Your task to perform on an android device: Go to ESPN.com Image 0: 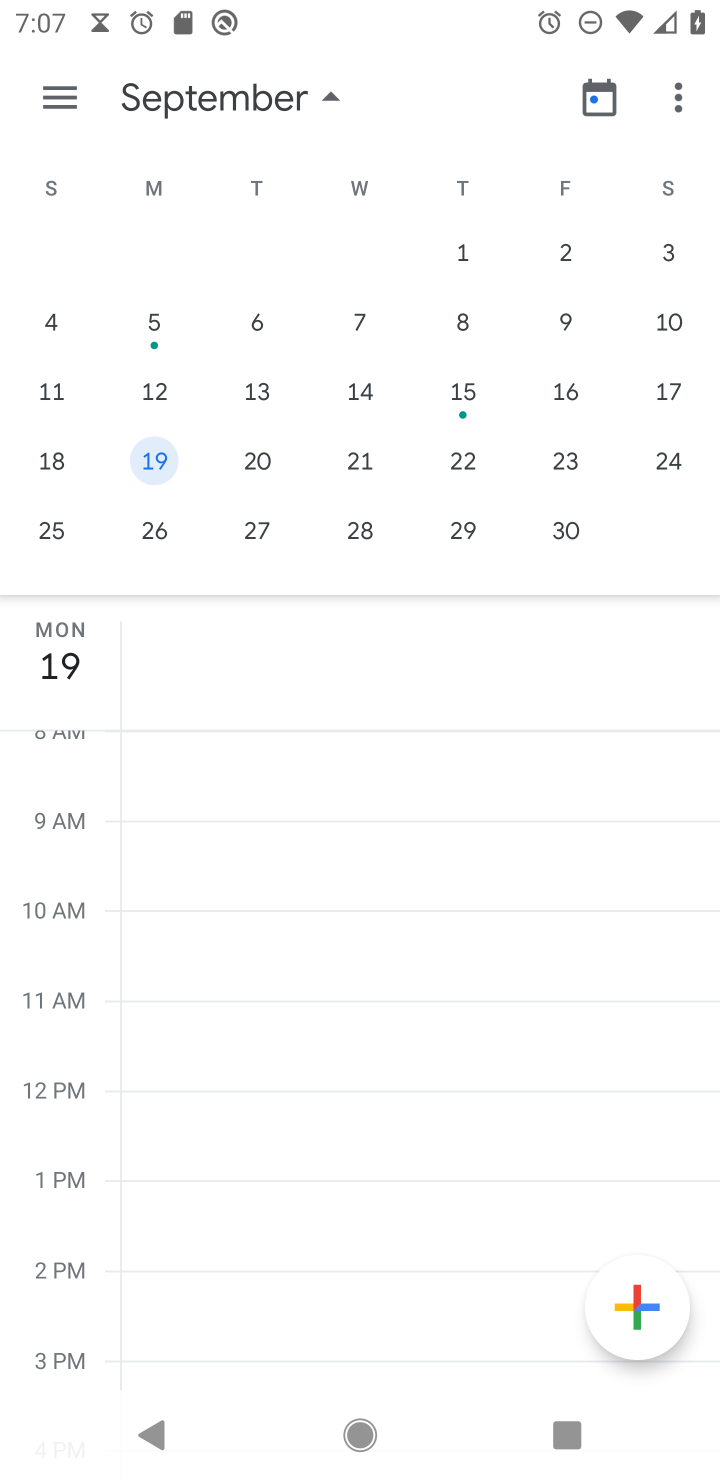
Step 0: press home button
Your task to perform on an android device: Go to ESPN.com Image 1: 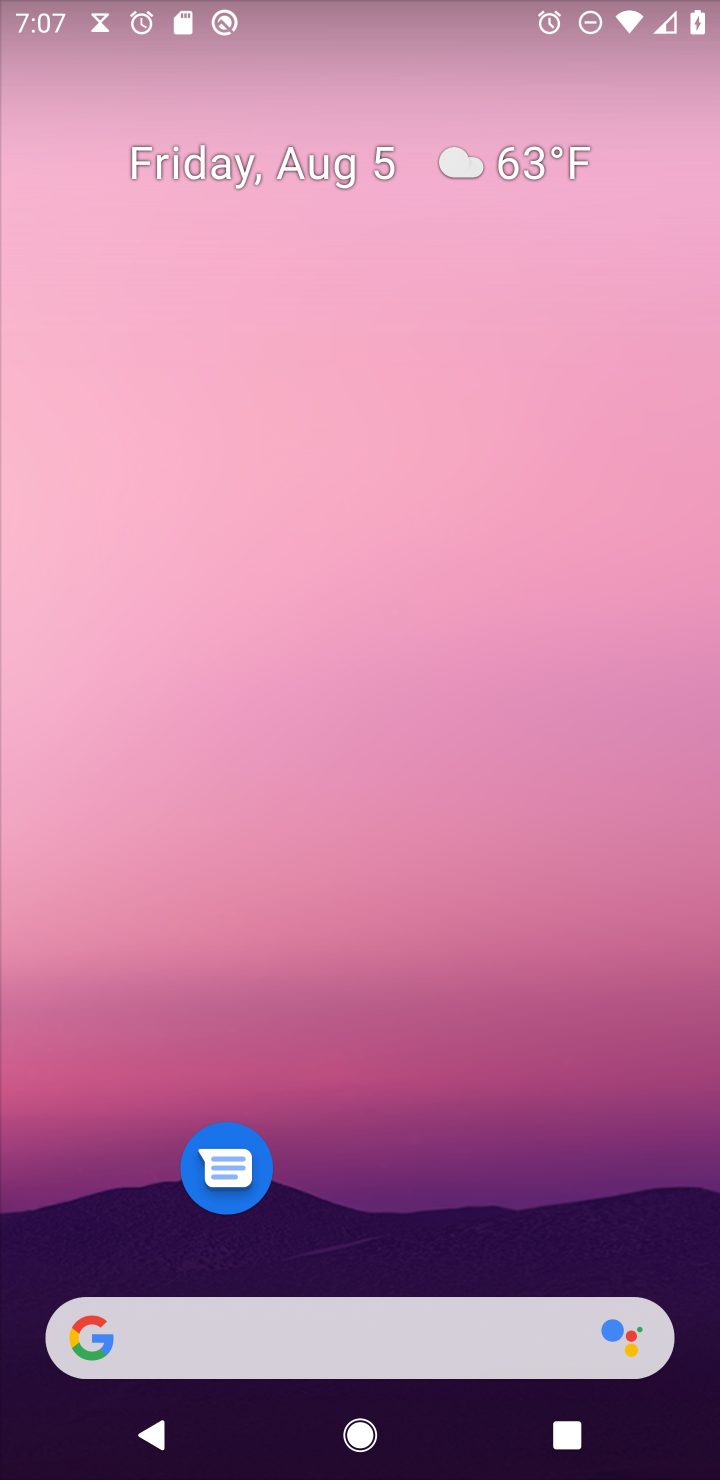
Step 1: press home button
Your task to perform on an android device: Go to ESPN.com Image 2: 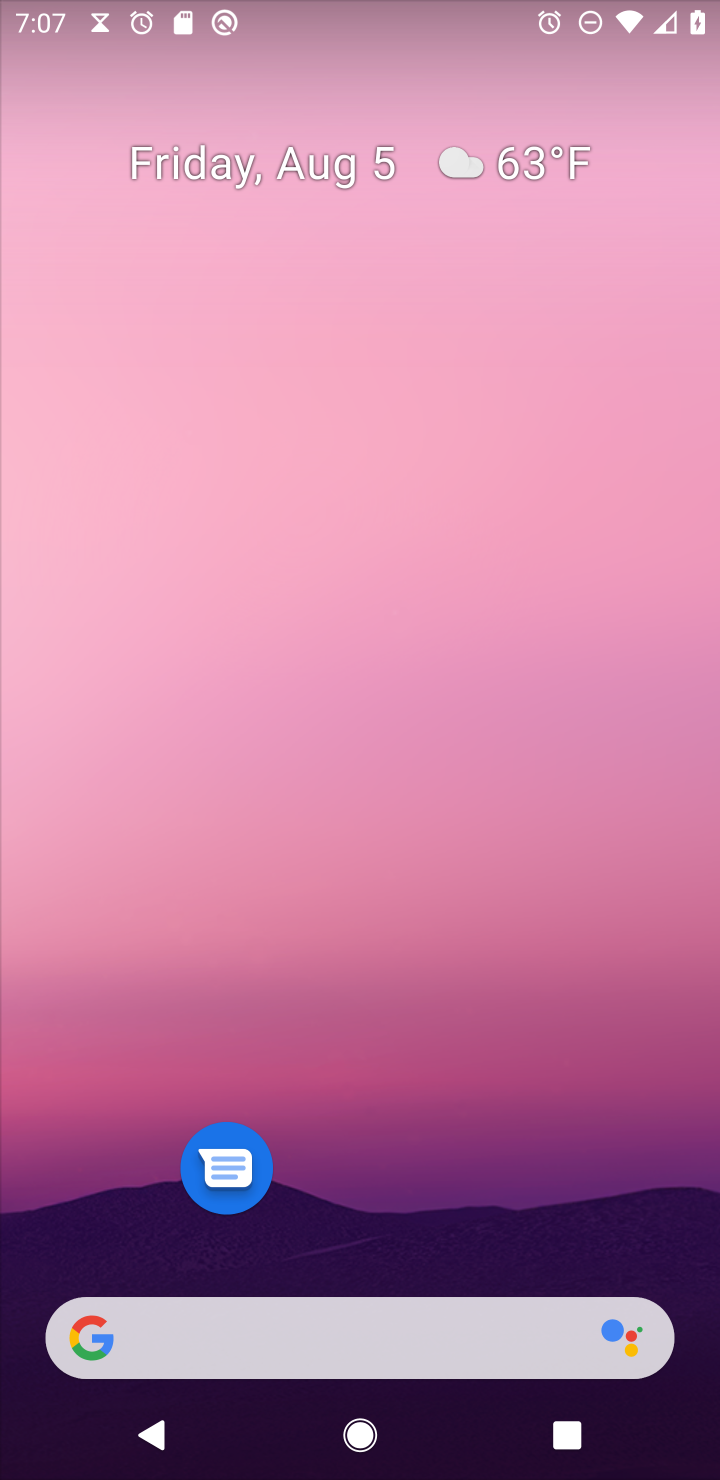
Step 2: click (77, 1338)
Your task to perform on an android device: Go to ESPN.com Image 3: 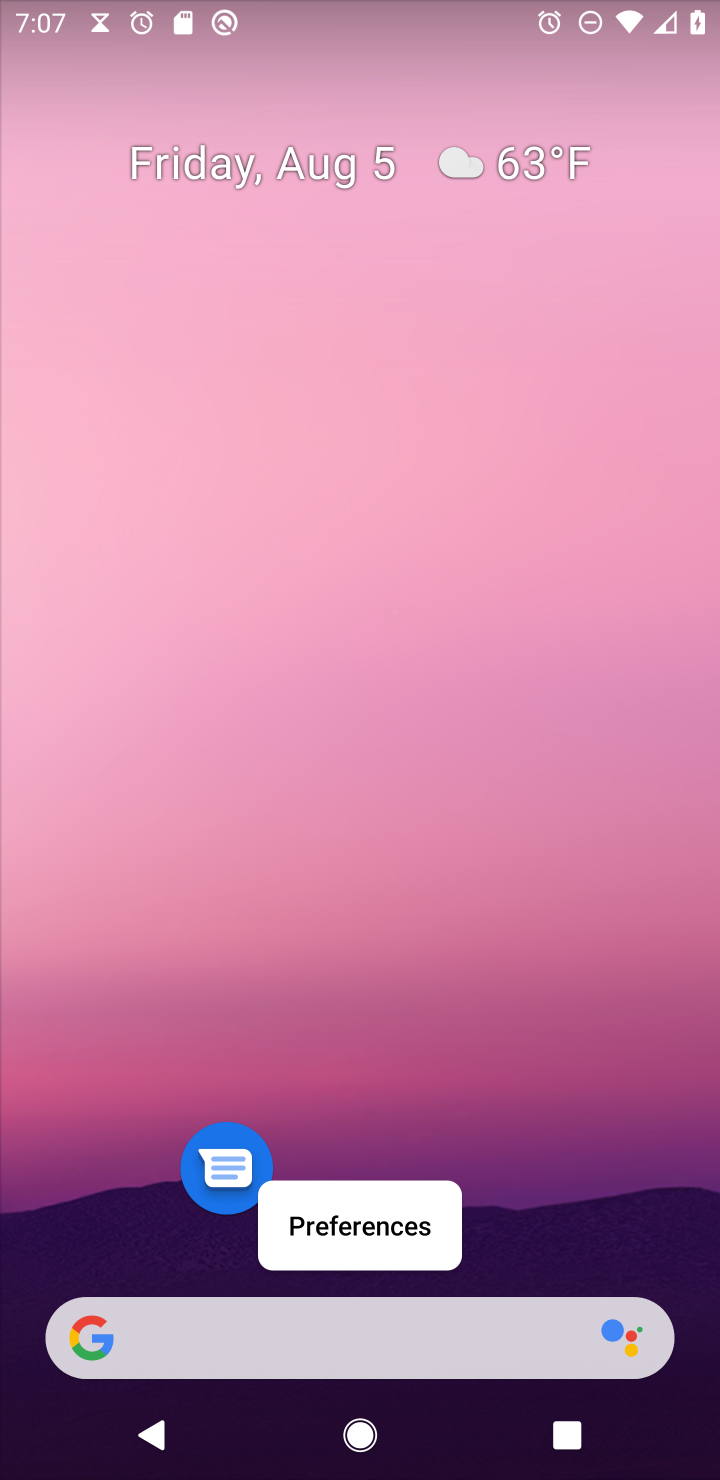
Step 3: click (86, 1333)
Your task to perform on an android device: Go to ESPN.com Image 4: 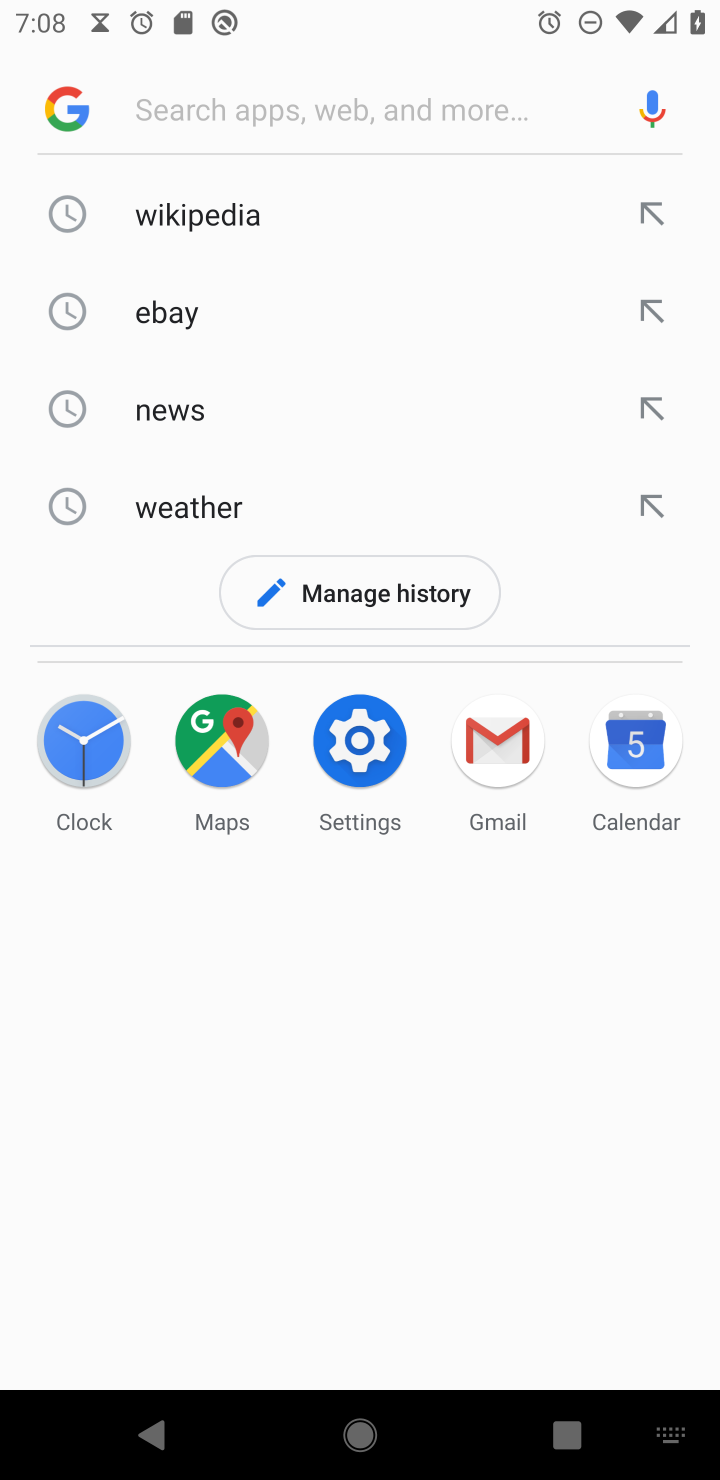
Step 4: press enter
Your task to perform on an android device: Go to ESPN.com Image 5: 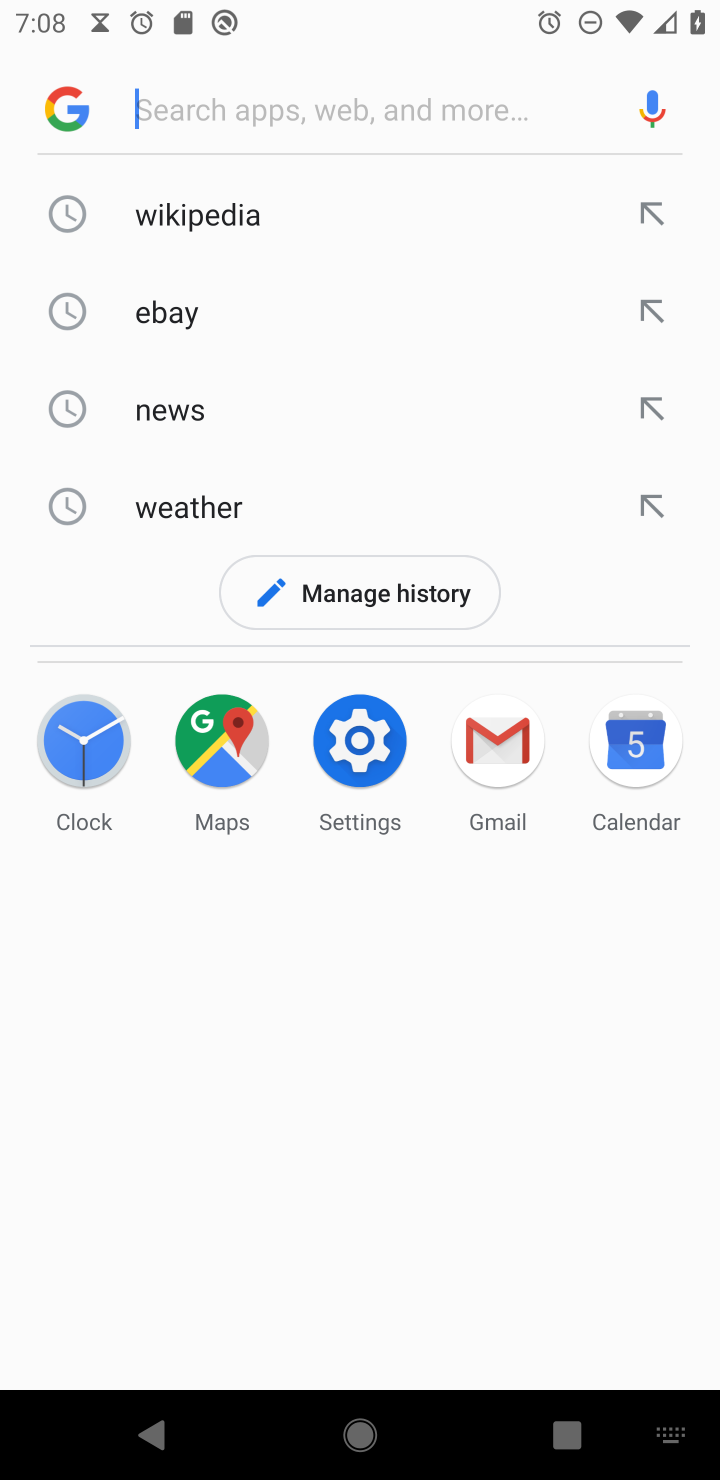
Step 5: type "ESPN.com"
Your task to perform on an android device: Go to ESPN.com Image 6: 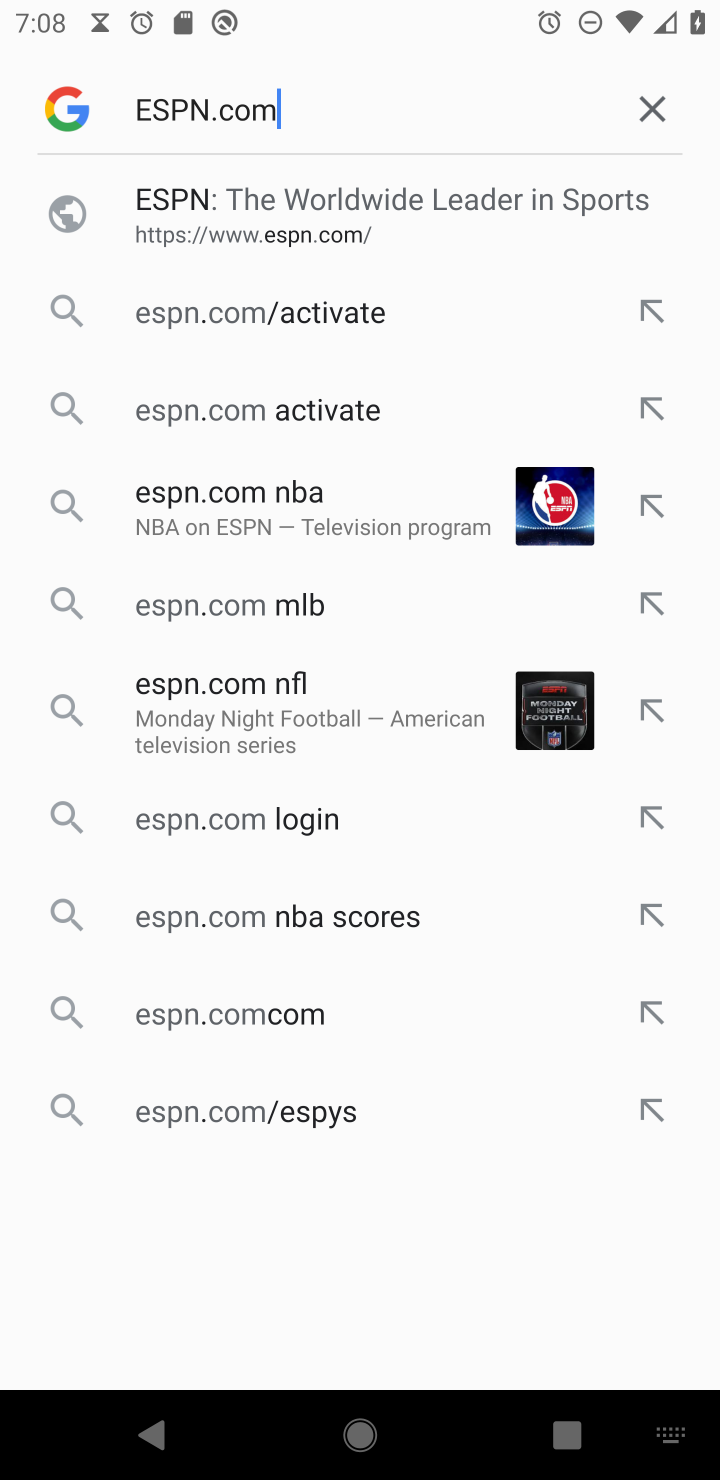
Step 6: press enter
Your task to perform on an android device: Go to ESPN.com Image 7: 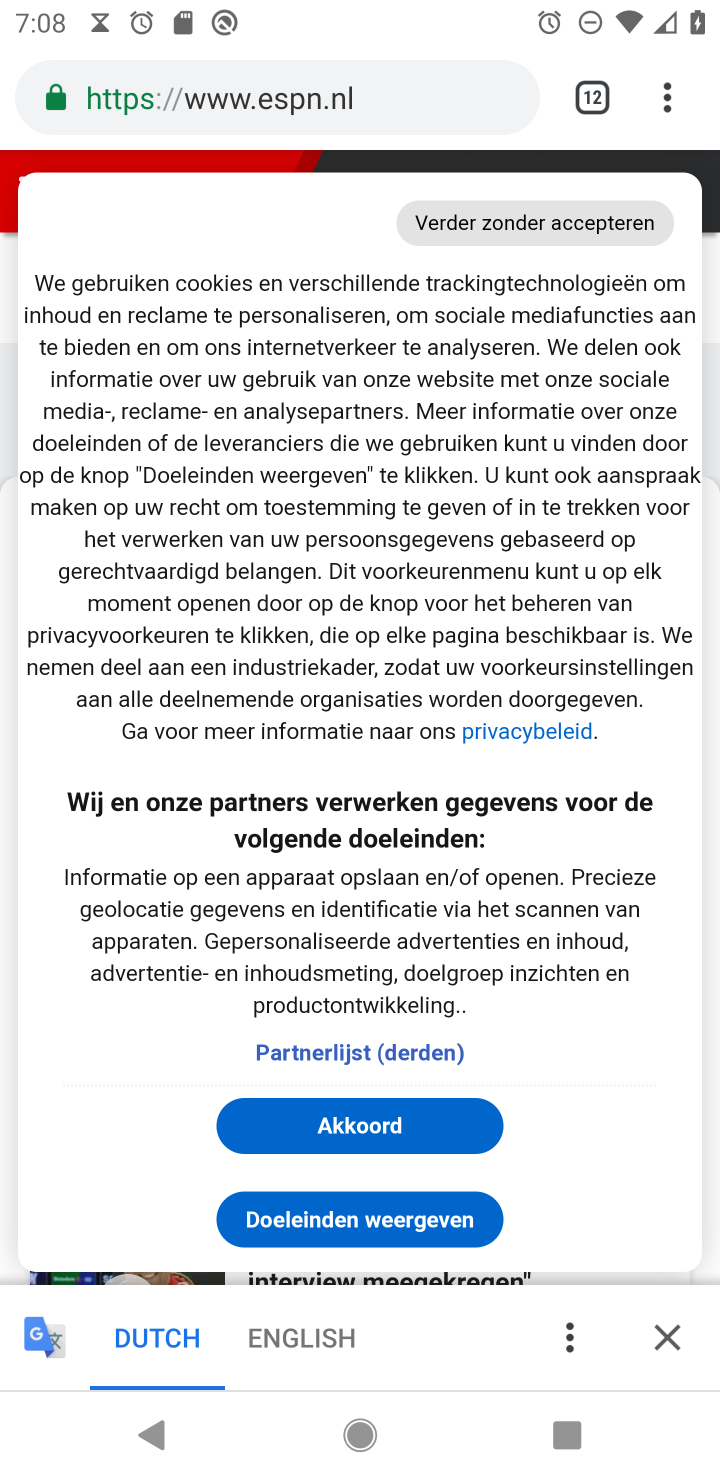
Step 7: task complete